Your task to perform on an android device: Open Reddit.com Image 0: 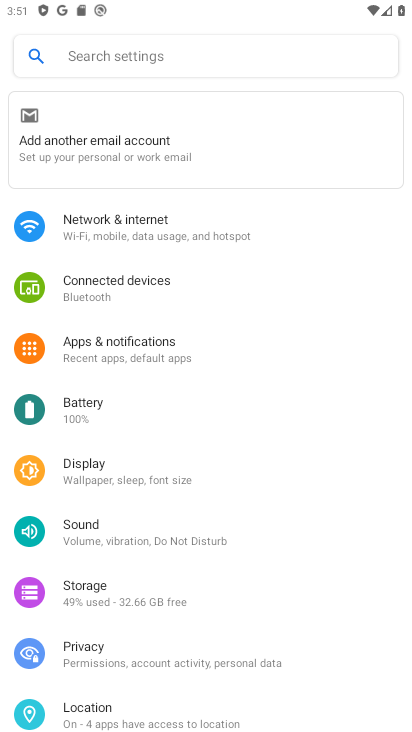
Step 0: press home button
Your task to perform on an android device: Open Reddit.com Image 1: 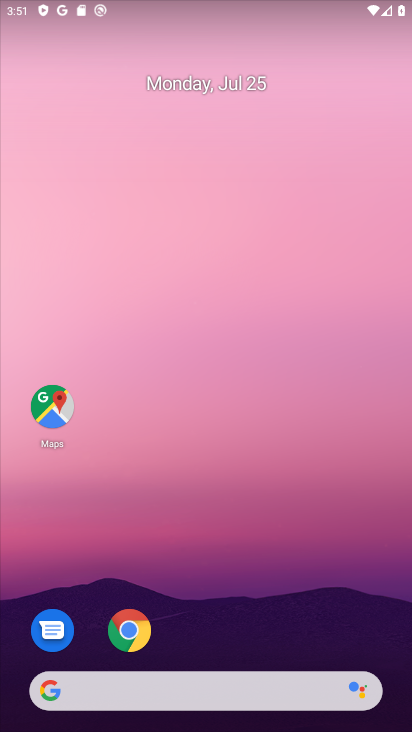
Step 1: click (127, 627)
Your task to perform on an android device: Open Reddit.com Image 2: 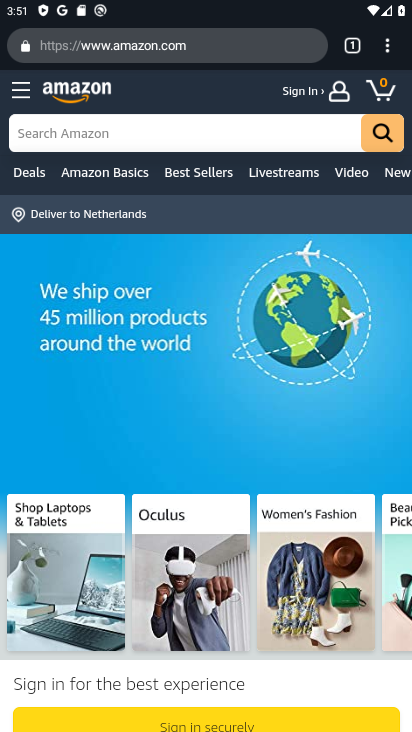
Step 2: click (221, 54)
Your task to perform on an android device: Open Reddit.com Image 3: 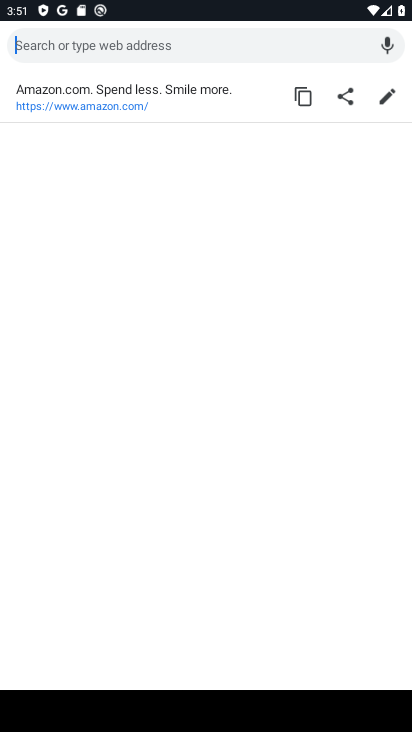
Step 3: type "Reddit.com"
Your task to perform on an android device: Open Reddit.com Image 4: 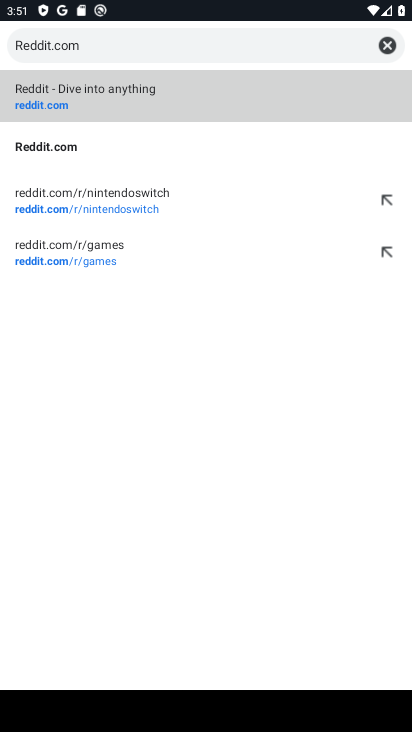
Step 4: click (78, 148)
Your task to perform on an android device: Open Reddit.com Image 5: 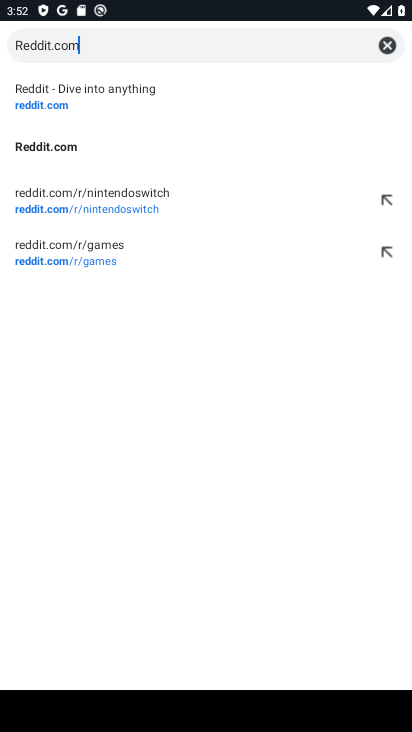
Step 5: click (23, 144)
Your task to perform on an android device: Open Reddit.com Image 6: 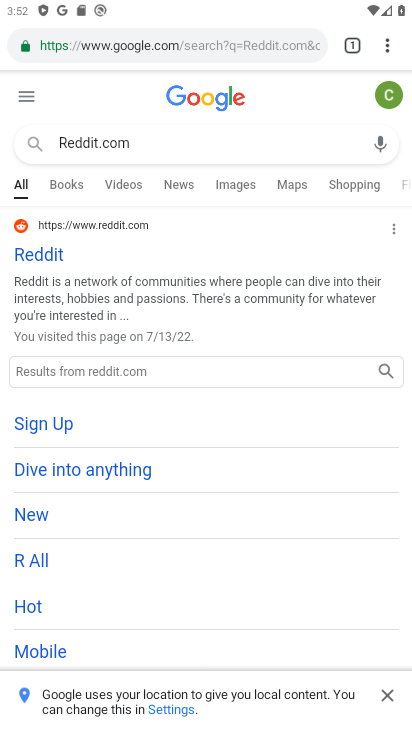
Step 6: click (46, 258)
Your task to perform on an android device: Open Reddit.com Image 7: 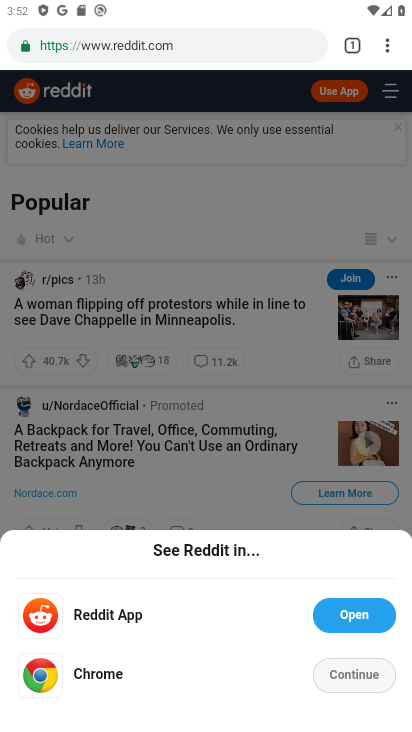
Step 7: click (358, 676)
Your task to perform on an android device: Open Reddit.com Image 8: 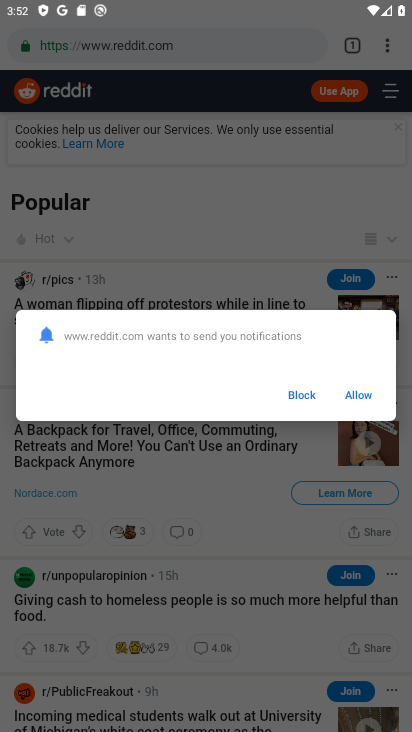
Step 8: click (348, 398)
Your task to perform on an android device: Open Reddit.com Image 9: 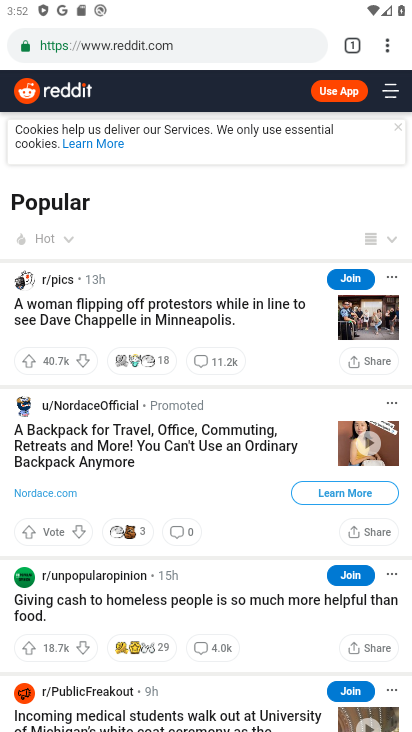
Step 9: task complete